Your task to perform on an android device: set the timer Image 0: 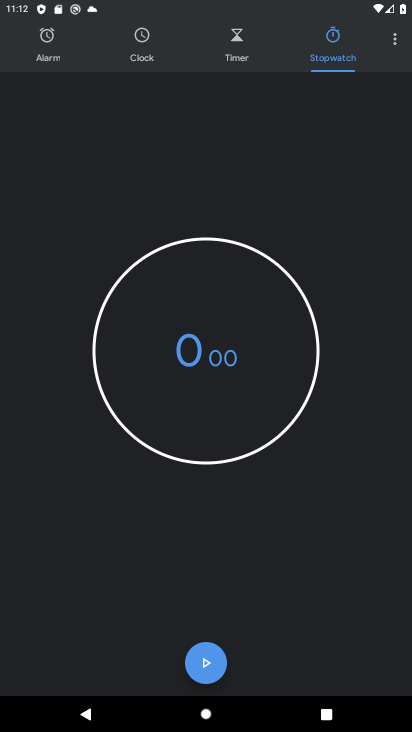
Step 0: press home button
Your task to perform on an android device: set the timer Image 1: 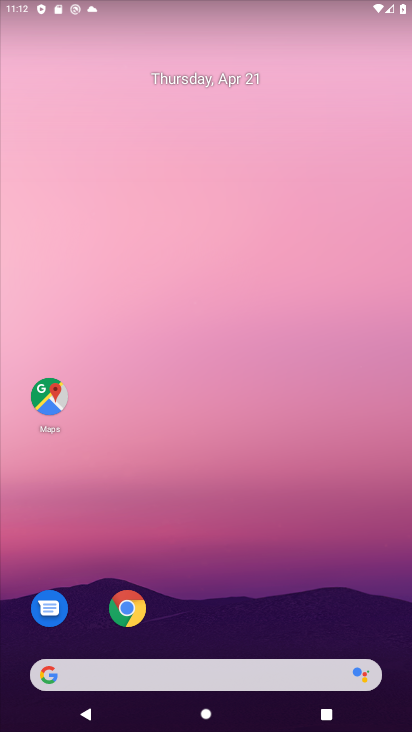
Step 1: drag from (243, 575) to (220, 228)
Your task to perform on an android device: set the timer Image 2: 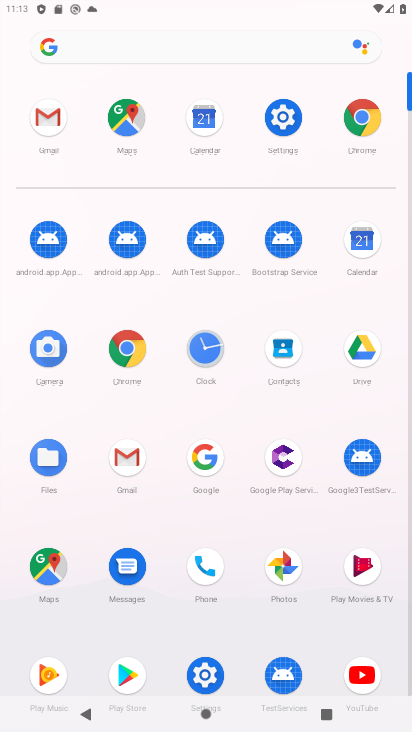
Step 2: click (205, 352)
Your task to perform on an android device: set the timer Image 3: 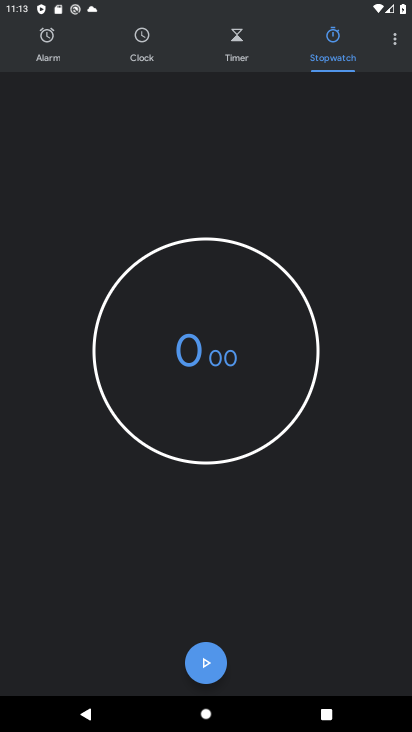
Step 3: click (238, 38)
Your task to perform on an android device: set the timer Image 4: 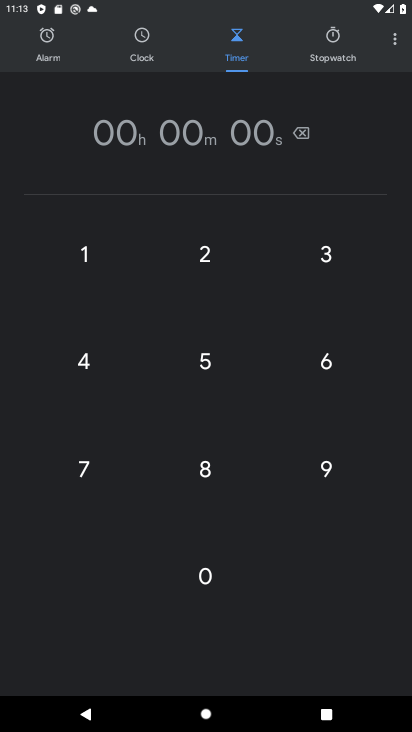
Step 4: click (205, 466)
Your task to perform on an android device: set the timer Image 5: 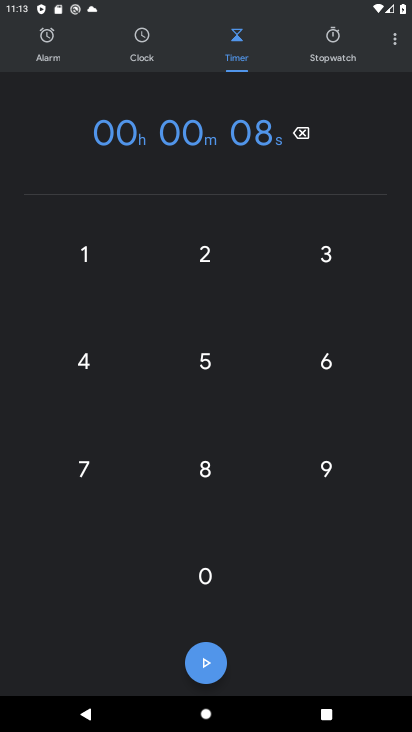
Step 5: click (215, 572)
Your task to perform on an android device: set the timer Image 6: 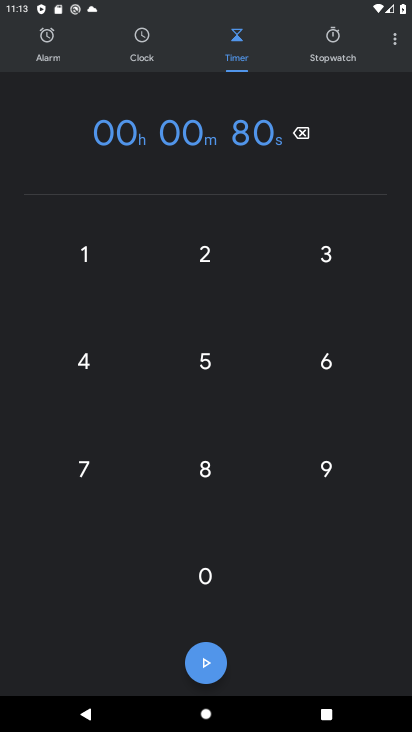
Step 6: click (210, 573)
Your task to perform on an android device: set the timer Image 7: 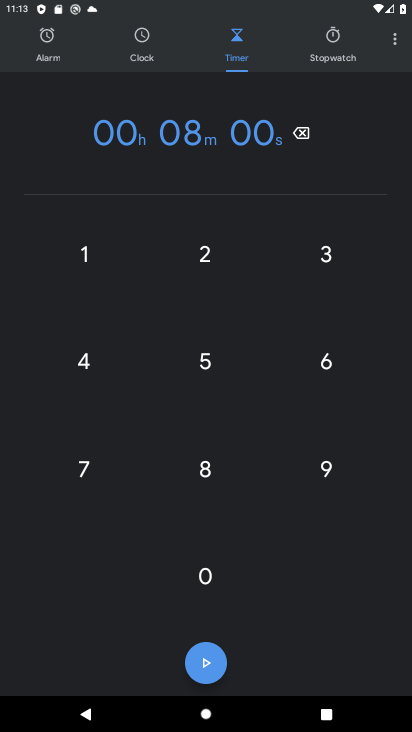
Step 7: click (214, 660)
Your task to perform on an android device: set the timer Image 8: 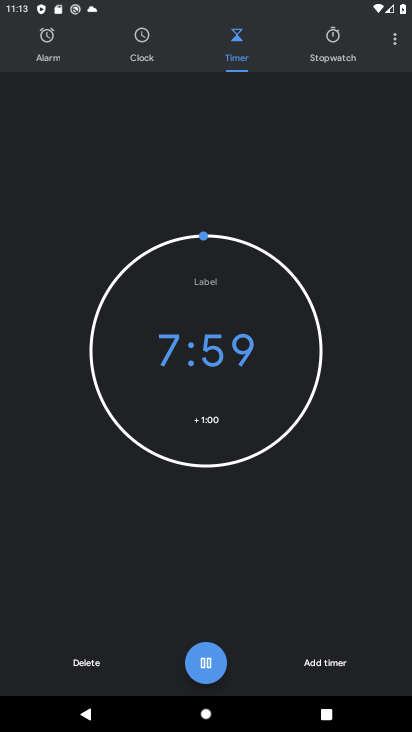
Step 8: click (327, 661)
Your task to perform on an android device: set the timer Image 9: 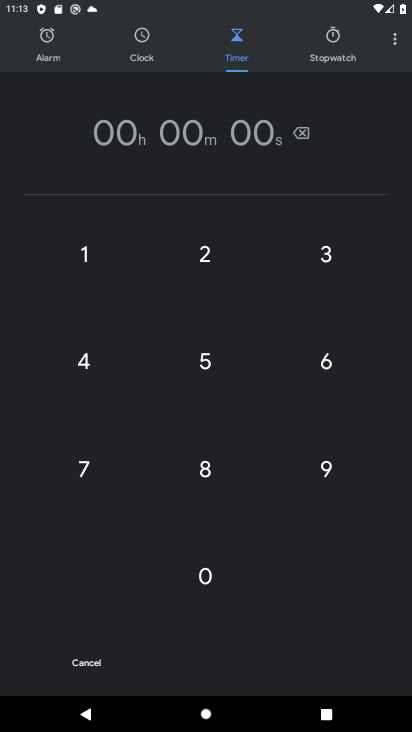
Step 9: task complete